Your task to perform on an android device: Open calendar and show me the first week of next month Image 0: 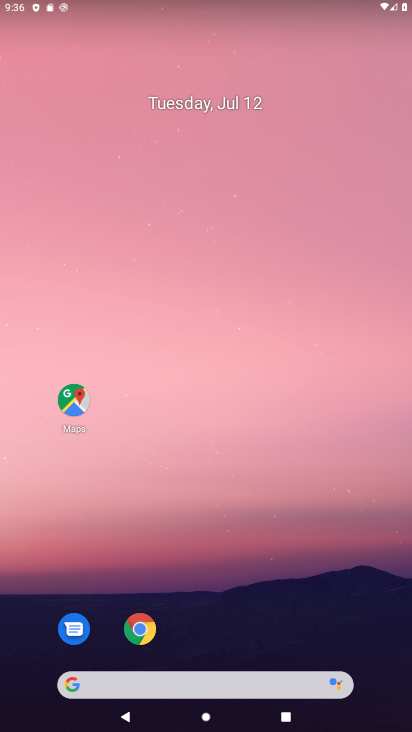
Step 0: drag from (67, 695) to (151, 81)
Your task to perform on an android device: Open calendar and show me the first week of next month Image 1: 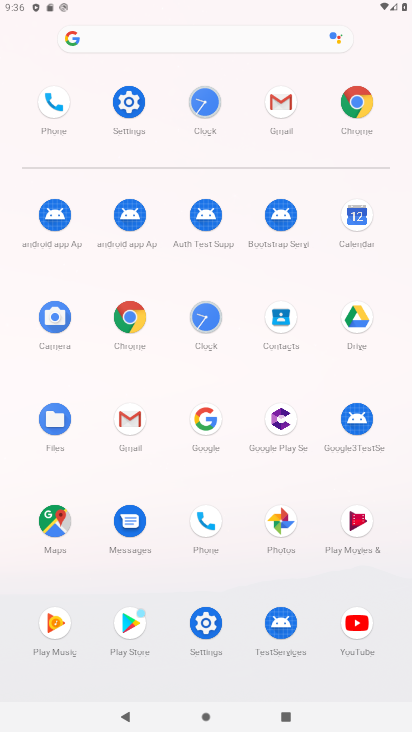
Step 1: click (353, 223)
Your task to perform on an android device: Open calendar and show me the first week of next month Image 2: 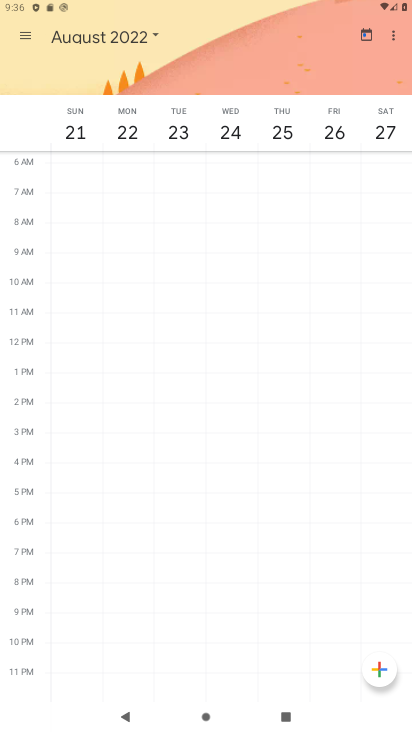
Step 2: click (146, 30)
Your task to perform on an android device: Open calendar and show me the first week of next month Image 3: 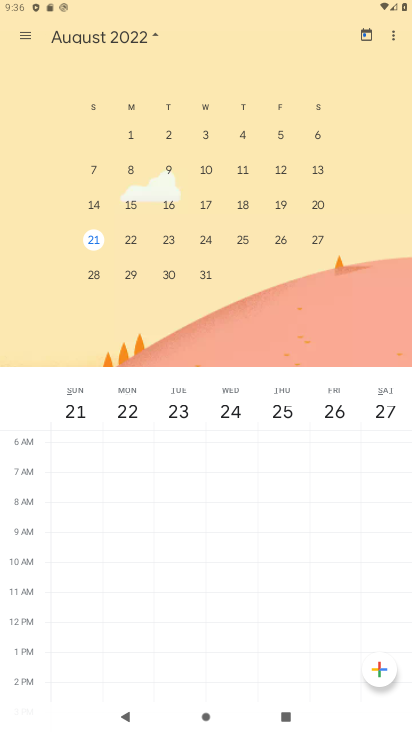
Step 3: drag from (64, 184) to (408, 146)
Your task to perform on an android device: Open calendar and show me the first week of next month Image 4: 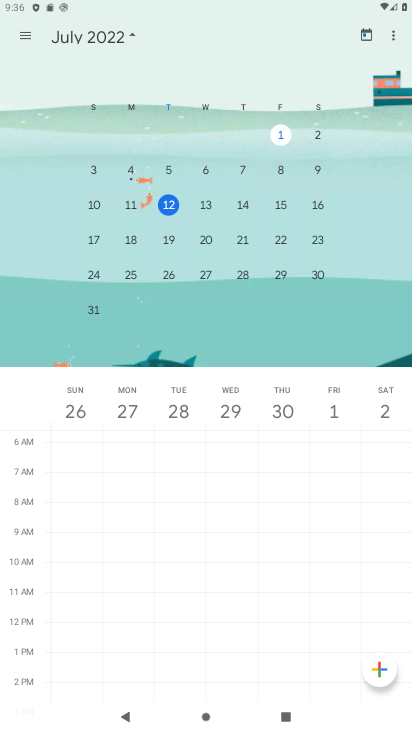
Step 4: drag from (322, 191) to (15, 200)
Your task to perform on an android device: Open calendar and show me the first week of next month Image 5: 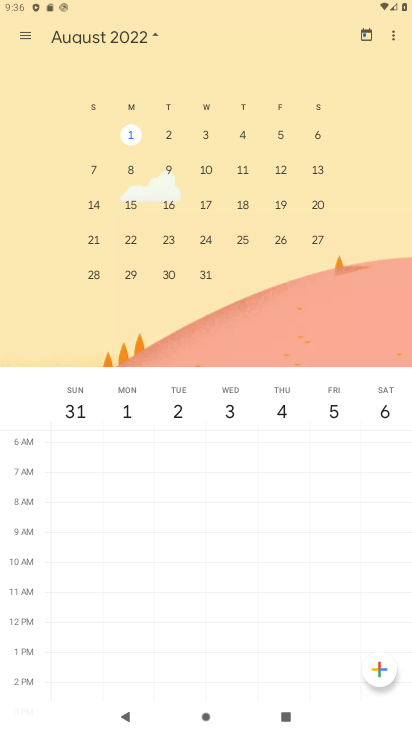
Step 5: click (203, 136)
Your task to perform on an android device: Open calendar and show me the first week of next month Image 6: 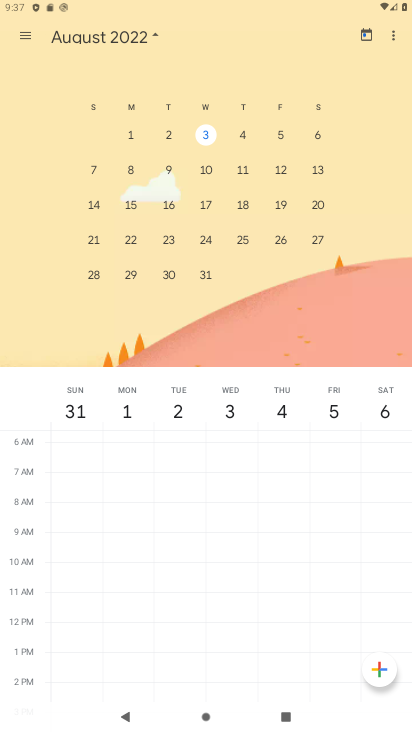
Step 6: task complete